Your task to perform on an android device: Go to wifi settings Image 0: 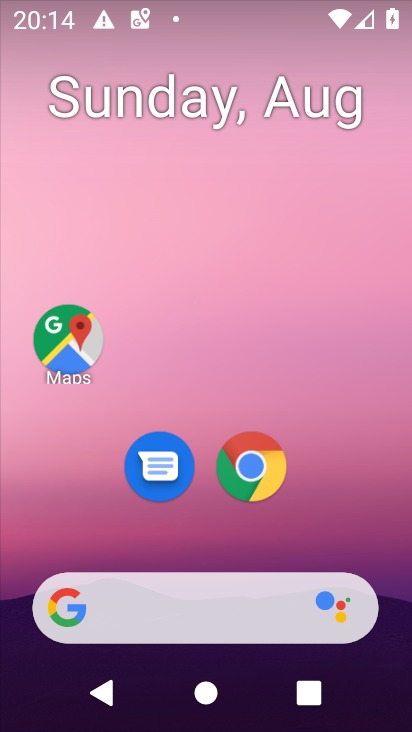
Step 0: drag from (371, 545) to (334, 147)
Your task to perform on an android device: Go to wifi settings Image 1: 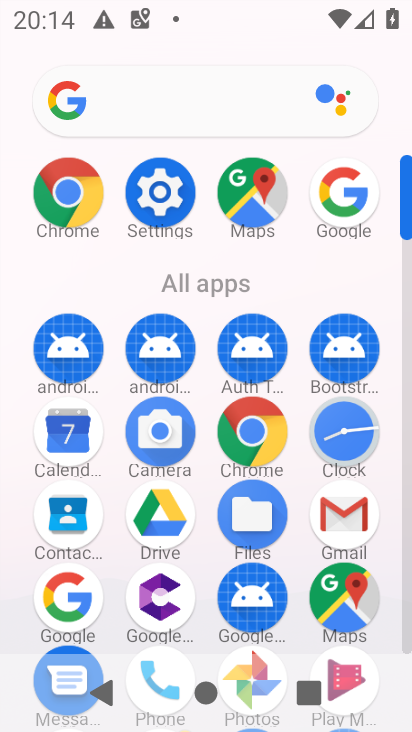
Step 1: click (159, 202)
Your task to perform on an android device: Go to wifi settings Image 2: 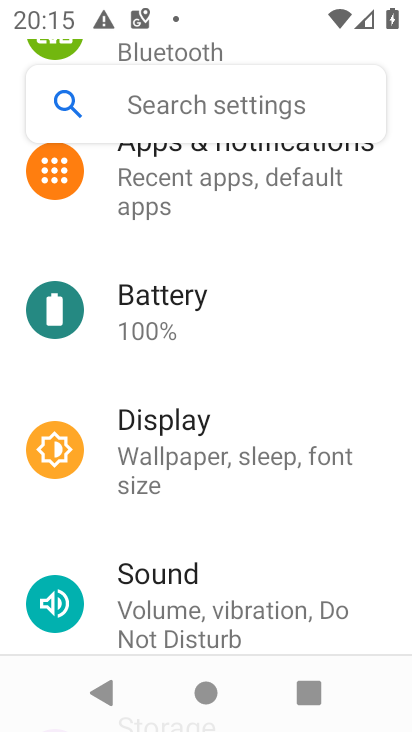
Step 2: drag from (205, 226) to (251, 589)
Your task to perform on an android device: Go to wifi settings Image 3: 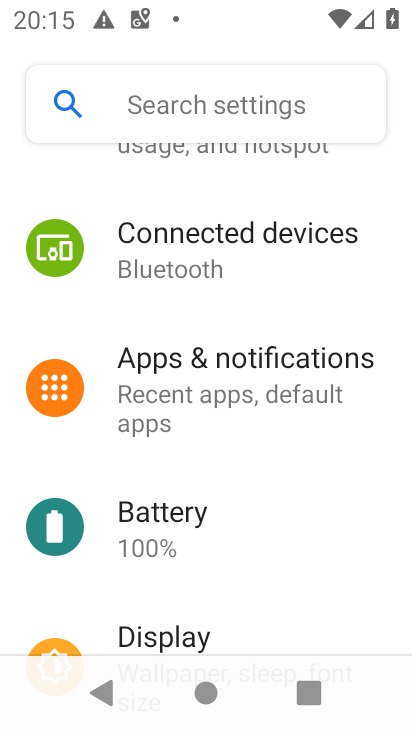
Step 3: drag from (263, 285) to (129, 717)
Your task to perform on an android device: Go to wifi settings Image 4: 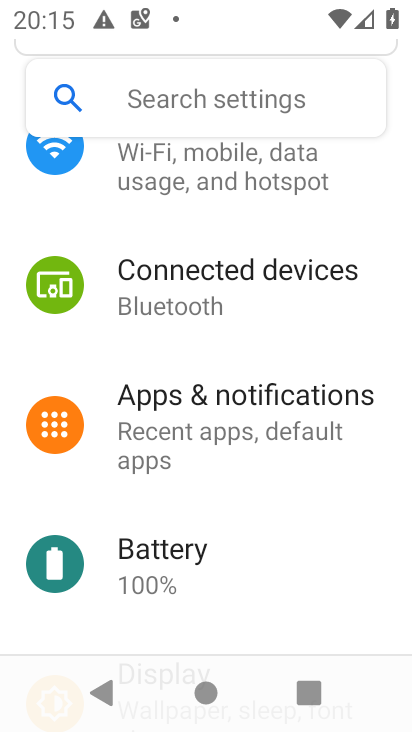
Step 4: click (230, 188)
Your task to perform on an android device: Go to wifi settings Image 5: 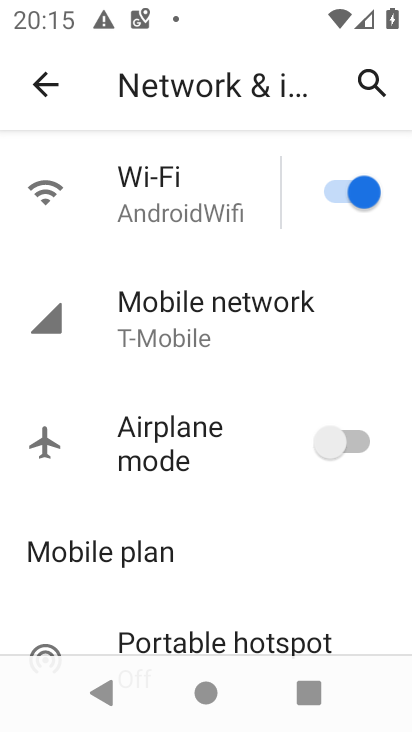
Step 5: click (205, 206)
Your task to perform on an android device: Go to wifi settings Image 6: 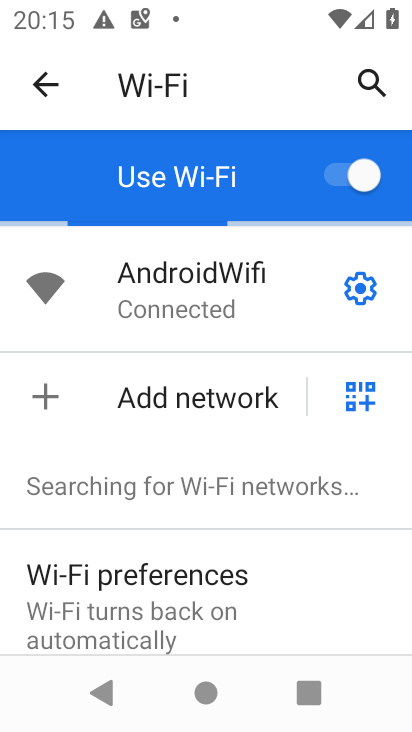
Step 6: task complete